Your task to perform on an android device: Go to Google Image 0: 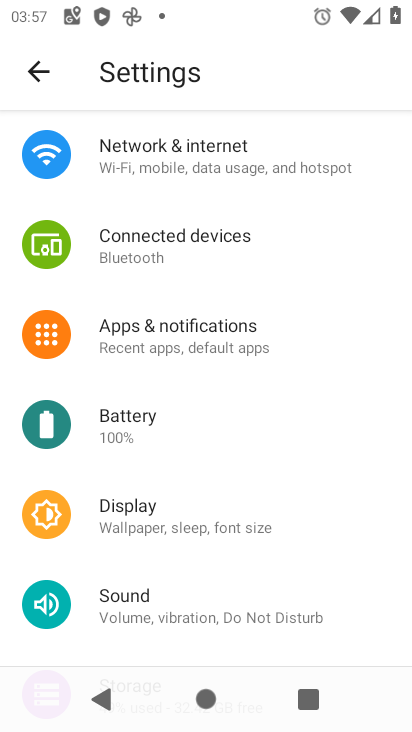
Step 0: press home button
Your task to perform on an android device: Go to Google Image 1: 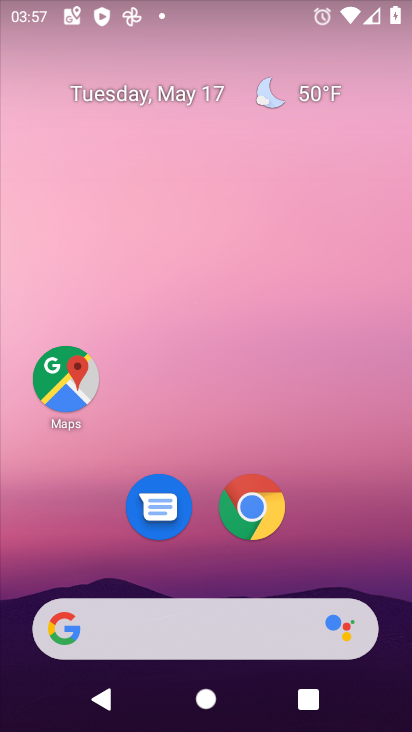
Step 1: drag from (321, 554) to (323, 111)
Your task to perform on an android device: Go to Google Image 2: 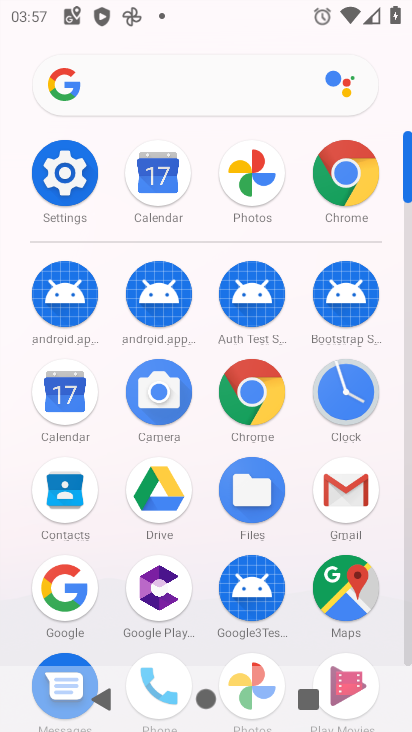
Step 2: click (76, 594)
Your task to perform on an android device: Go to Google Image 3: 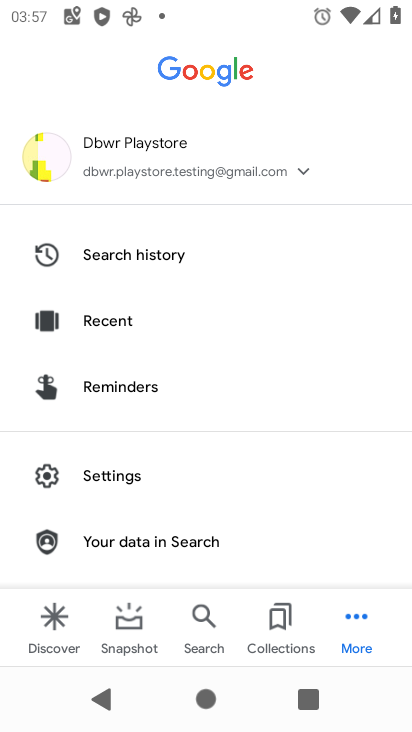
Step 3: task complete